Your task to perform on an android device: change notification settings in the gmail app Image 0: 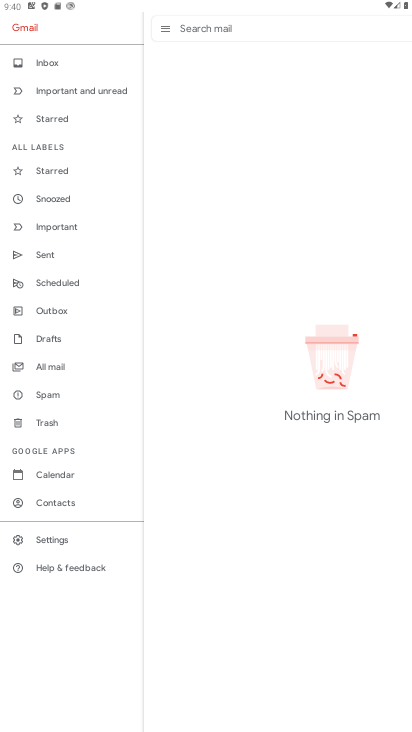
Step 0: press home button
Your task to perform on an android device: change notification settings in the gmail app Image 1: 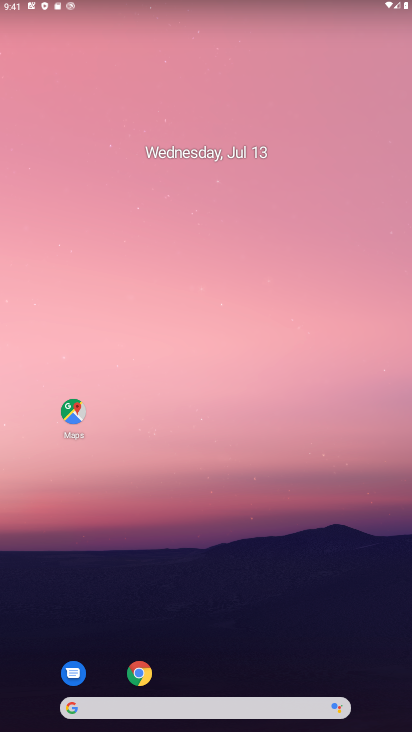
Step 1: drag from (216, 665) to (204, 167)
Your task to perform on an android device: change notification settings in the gmail app Image 2: 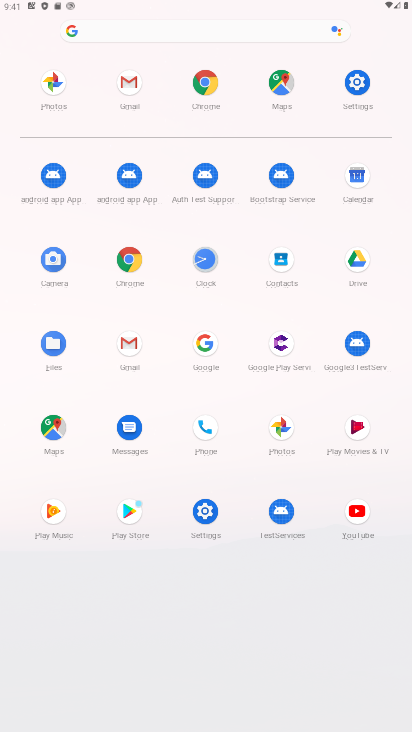
Step 2: click (349, 78)
Your task to perform on an android device: change notification settings in the gmail app Image 3: 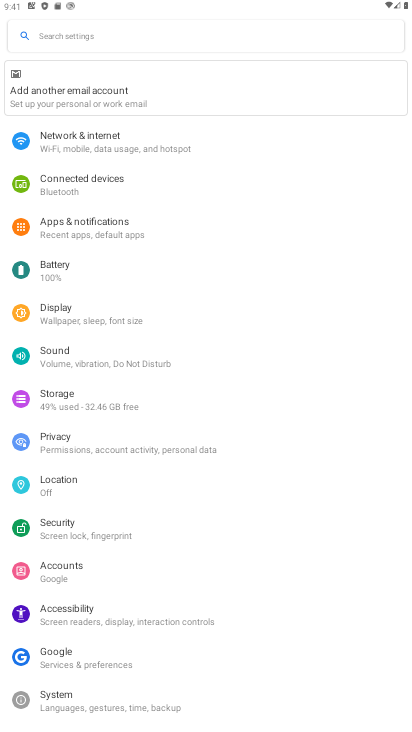
Step 3: click (82, 230)
Your task to perform on an android device: change notification settings in the gmail app Image 4: 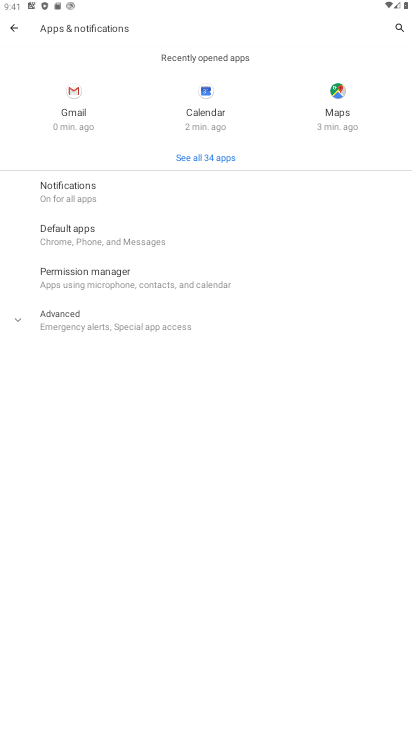
Step 4: click (64, 89)
Your task to perform on an android device: change notification settings in the gmail app Image 5: 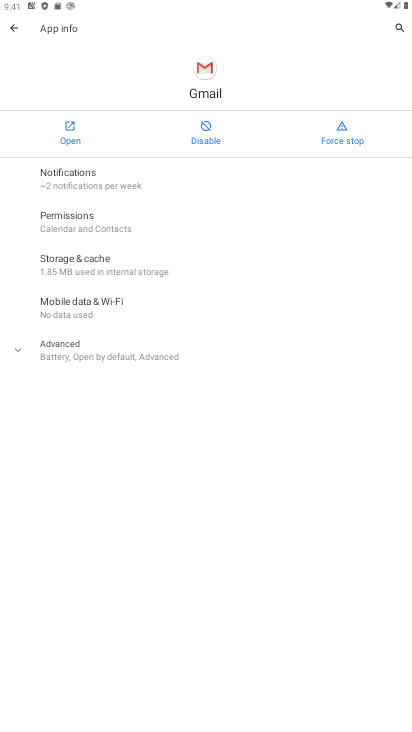
Step 5: click (187, 171)
Your task to perform on an android device: change notification settings in the gmail app Image 6: 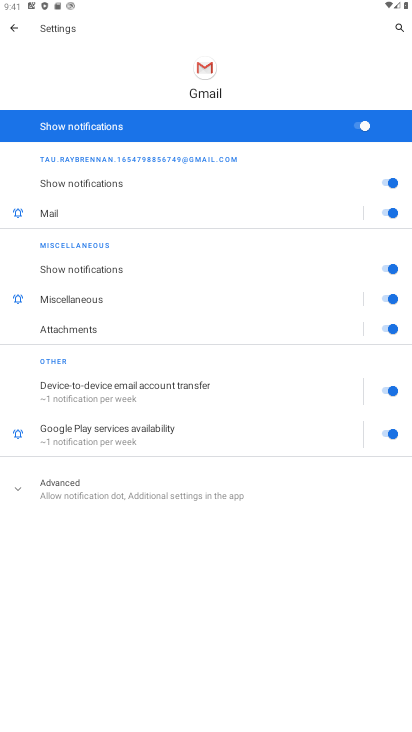
Step 6: click (163, 484)
Your task to perform on an android device: change notification settings in the gmail app Image 7: 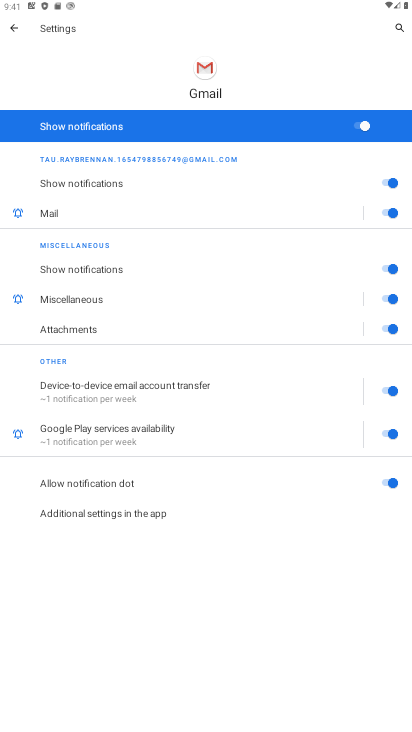
Step 7: click (391, 482)
Your task to perform on an android device: change notification settings in the gmail app Image 8: 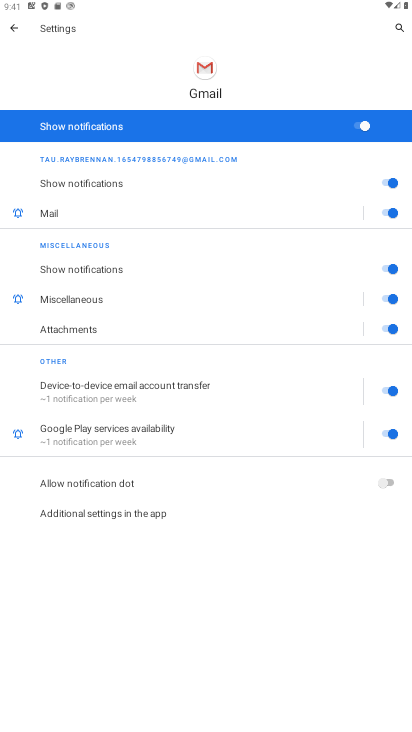
Step 8: click (387, 296)
Your task to perform on an android device: change notification settings in the gmail app Image 9: 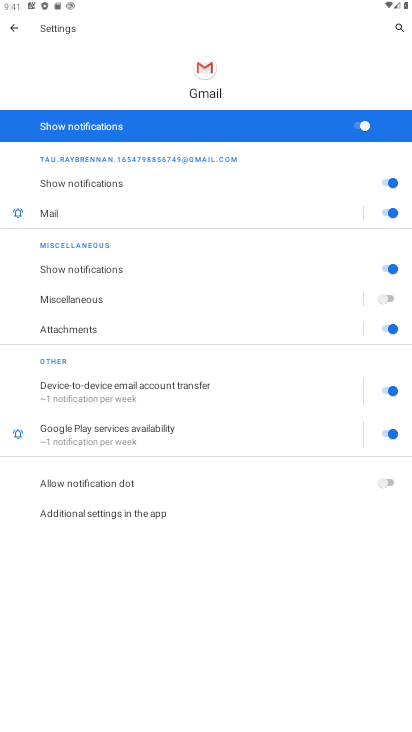
Step 9: click (390, 216)
Your task to perform on an android device: change notification settings in the gmail app Image 10: 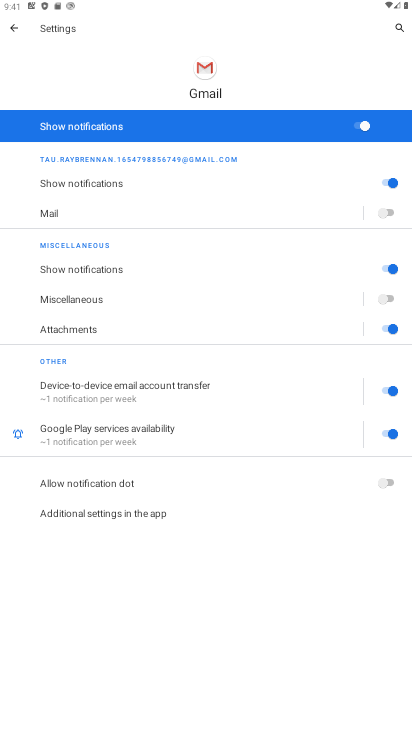
Step 10: task complete